Your task to perform on an android device: Open Google Maps and go to "Timeline" Image 0: 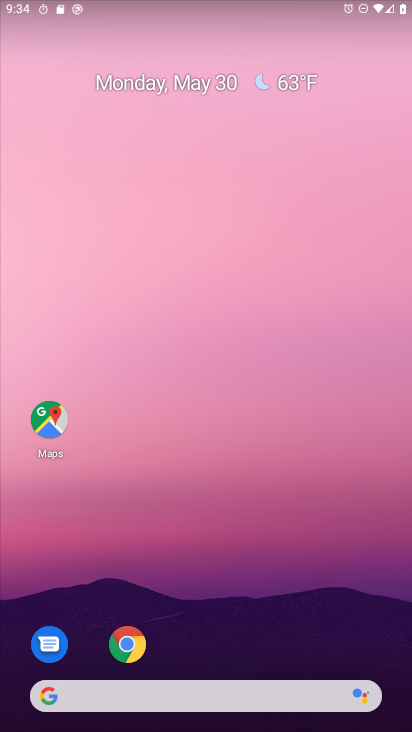
Step 0: click (50, 419)
Your task to perform on an android device: Open Google Maps and go to "Timeline" Image 1: 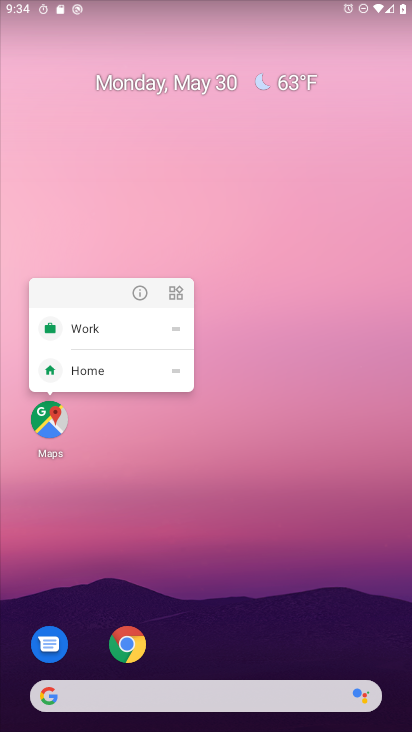
Step 1: click (55, 416)
Your task to perform on an android device: Open Google Maps and go to "Timeline" Image 2: 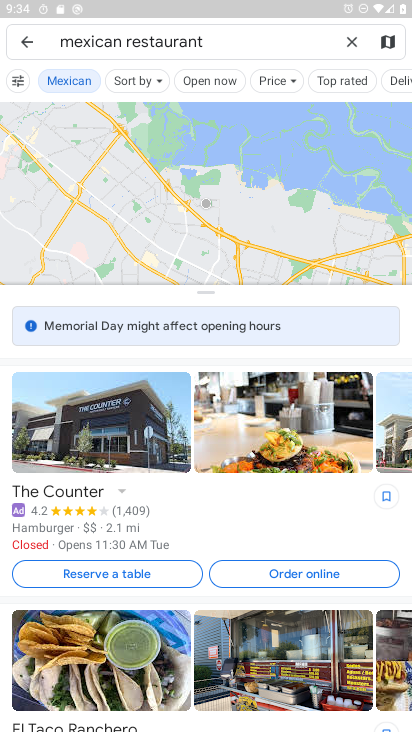
Step 2: click (349, 36)
Your task to perform on an android device: Open Google Maps and go to "Timeline" Image 3: 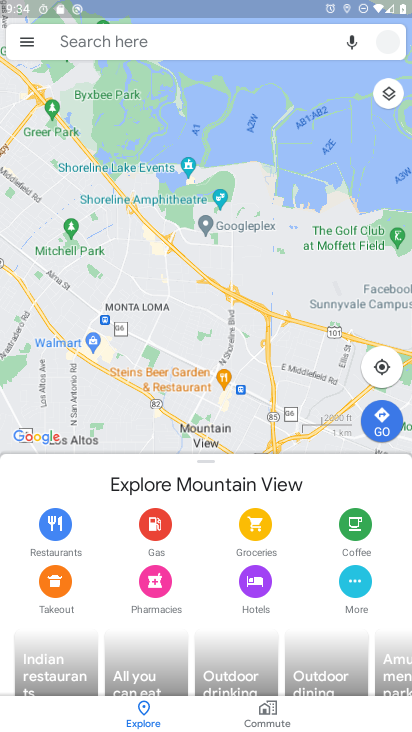
Step 3: click (21, 42)
Your task to perform on an android device: Open Google Maps and go to "Timeline" Image 4: 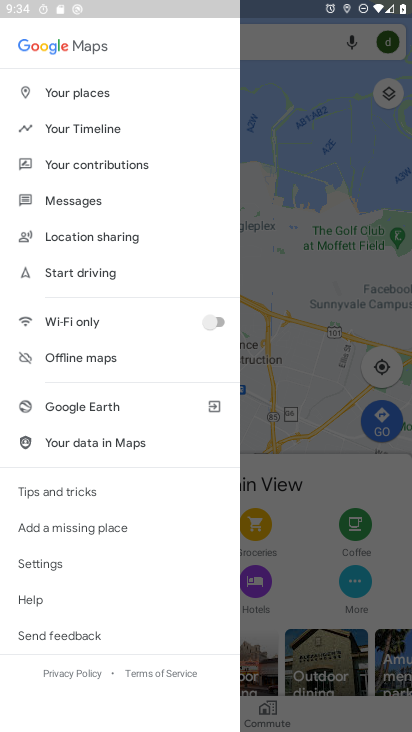
Step 4: click (89, 133)
Your task to perform on an android device: Open Google Maps and go to "Timeline" Image 5: 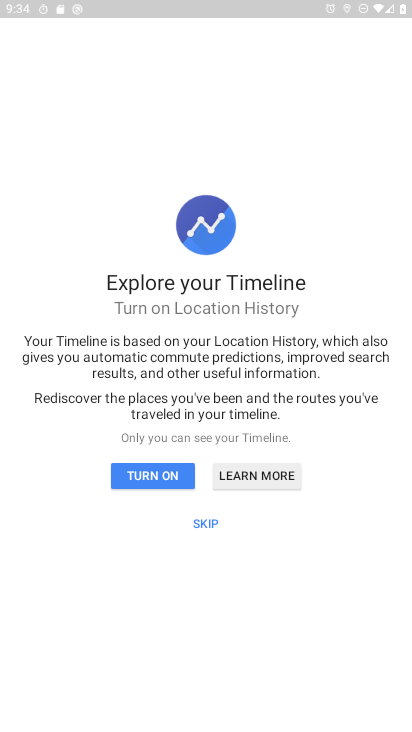
Step 5: click (209, 531)
Your task to perform on an android device: Open Google Maps and go to "Timeline" Image 6: 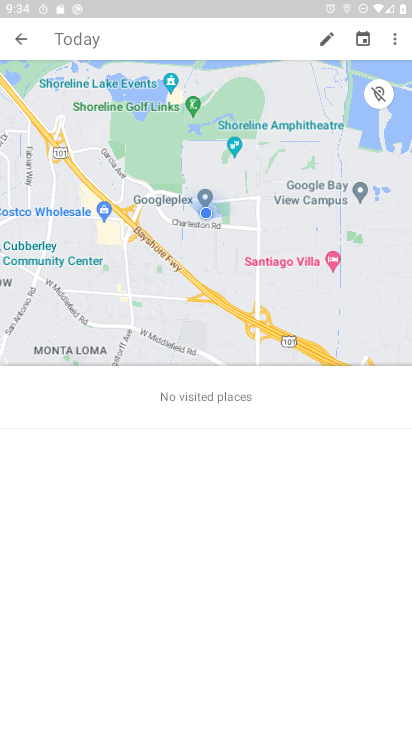
Step 6: task complete